Your task to perform on an android device: open the mobile data screen to see how much data has been used Image 0: 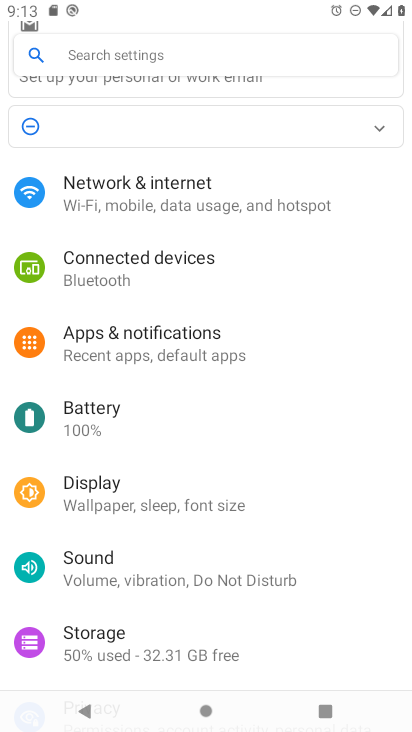
Step 0: press home button
Your task to perform on an android device: open the mobile data screen to see how much data has been used Image 1: 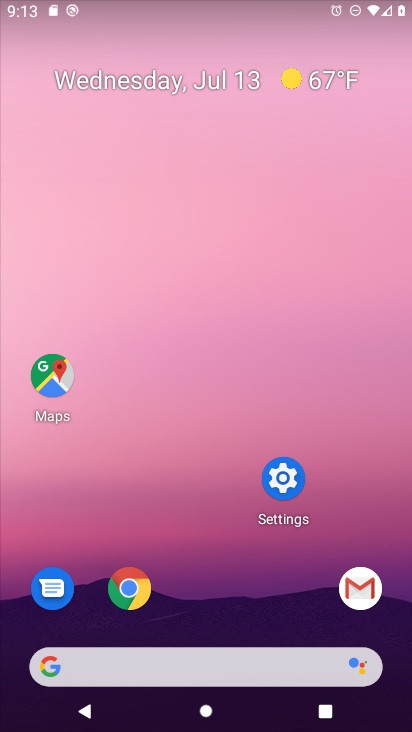
Step 1: click (271, 485)
Your task to perform on an android device: open the mobile data screen to see how much data has been used Image 2: 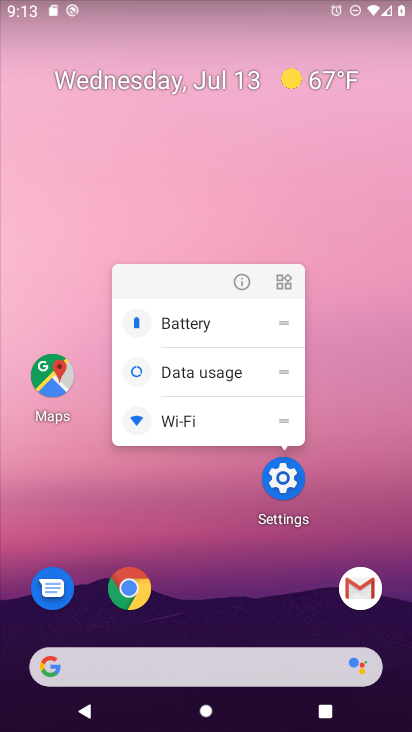
Step 2: click (282, 506)
Your task to perform on an android device: open the mobile data screen to see how much data has been used Image 3: 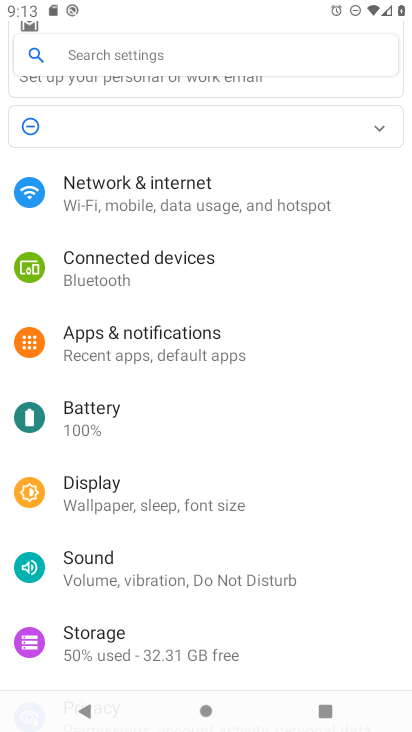
Step 3: click (98, 63)
Your task to perform on an android device: open the mobile data screen to see how much data has been used Image 4: 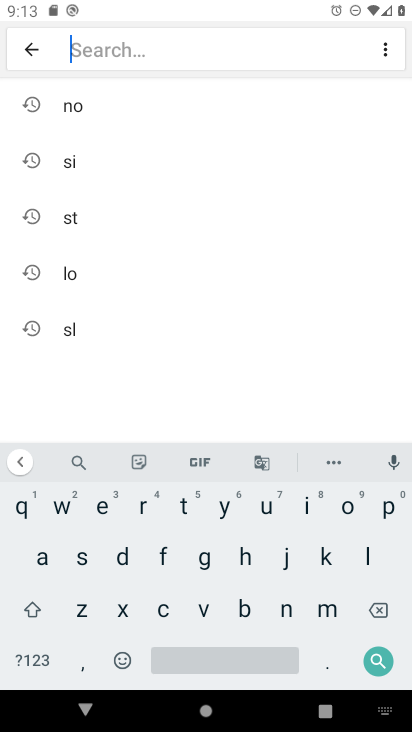
Step 4: click (126, 559)
Your task to perform on an android device: open the mobile data screen to see how much data has been used Image 5: 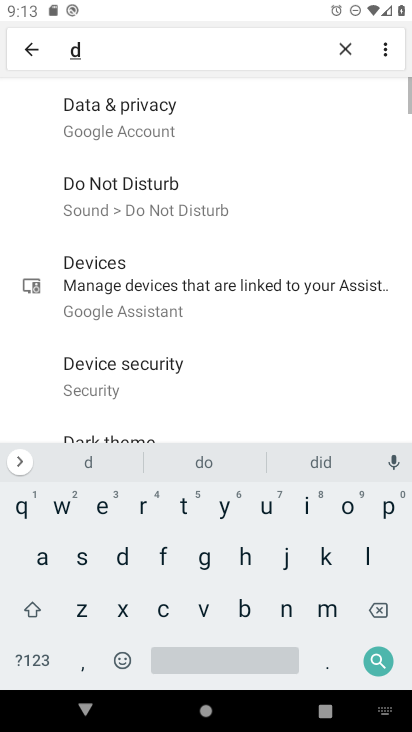
Step 5: click (40, 563)
Your task to perform on an android device: open the mobile data screen to see how much data has been used Image 6: 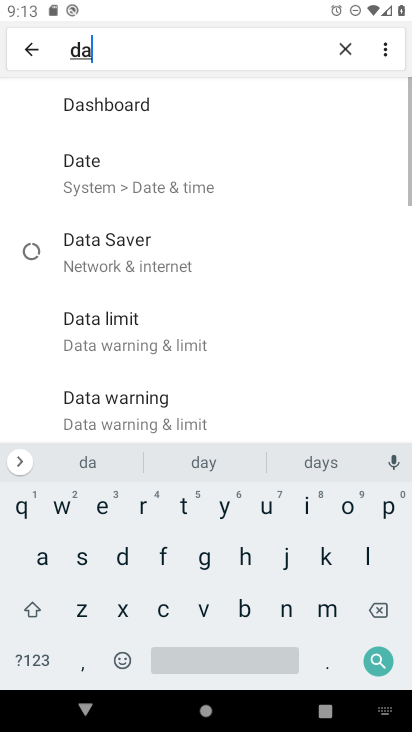
Step 6: click (182, 511)
Your task to perform on an android device: open the mobile data screen to see how much data has been used Image 7: 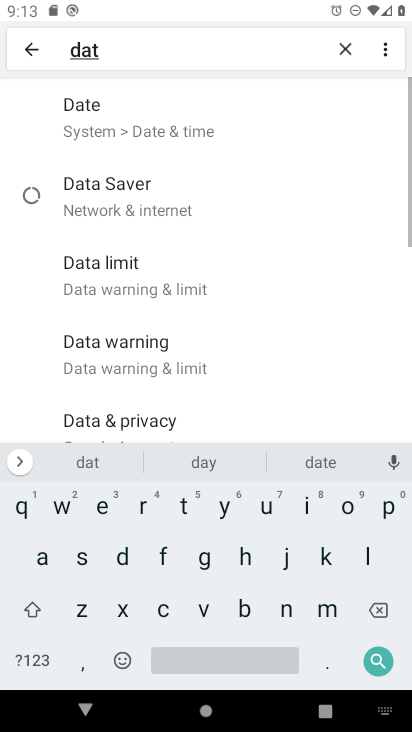
Step 7: click (42, 558)
Your task to perform on an android device: open the mobile data screen to see how much data has been used Image 8: 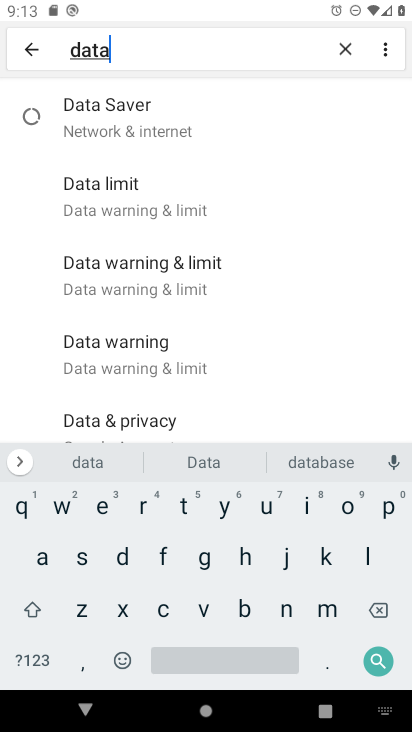
Step 8: click (215, 662)
Your task to perform on an android device: open the mobile data screen to see how much data has been used Image 9: 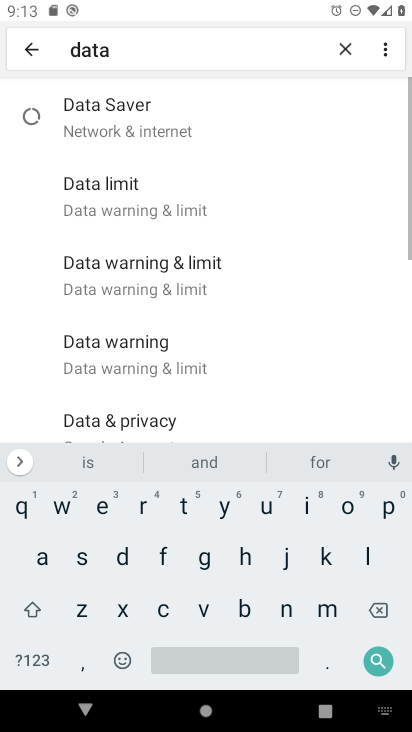
Step 9: click (268, 502)
Your task to perform on an android device: open the mobile data screen to see how much data has been used Image 10: 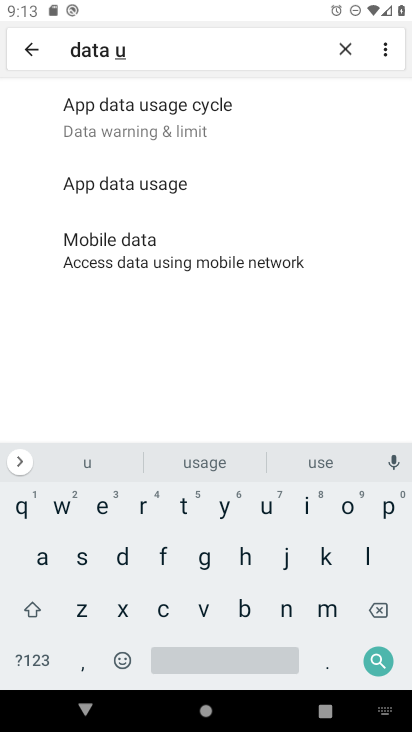
Step 10: click (114, 187)
Your task to perform on an android device: open the mobile data screen to see how much data has been used Image 11: 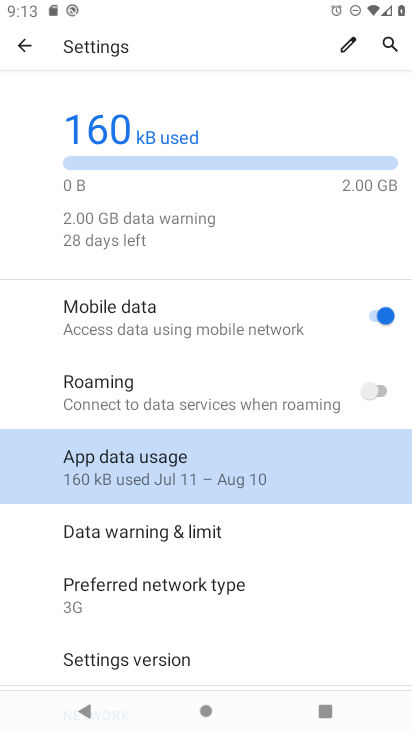
Step 11: click (97, 470)
Your task to perform on an android device: open the mobile data screen to see how much data has been used Image 12: 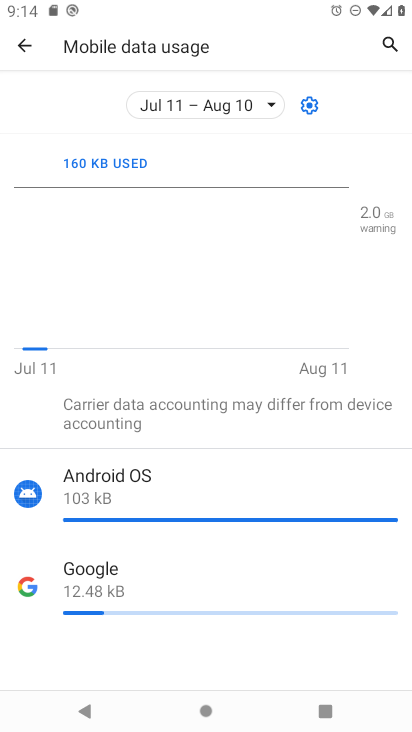
Step 12: task complete